Your task to perform on an android device: Show the shopping cart on costco. Image 0: 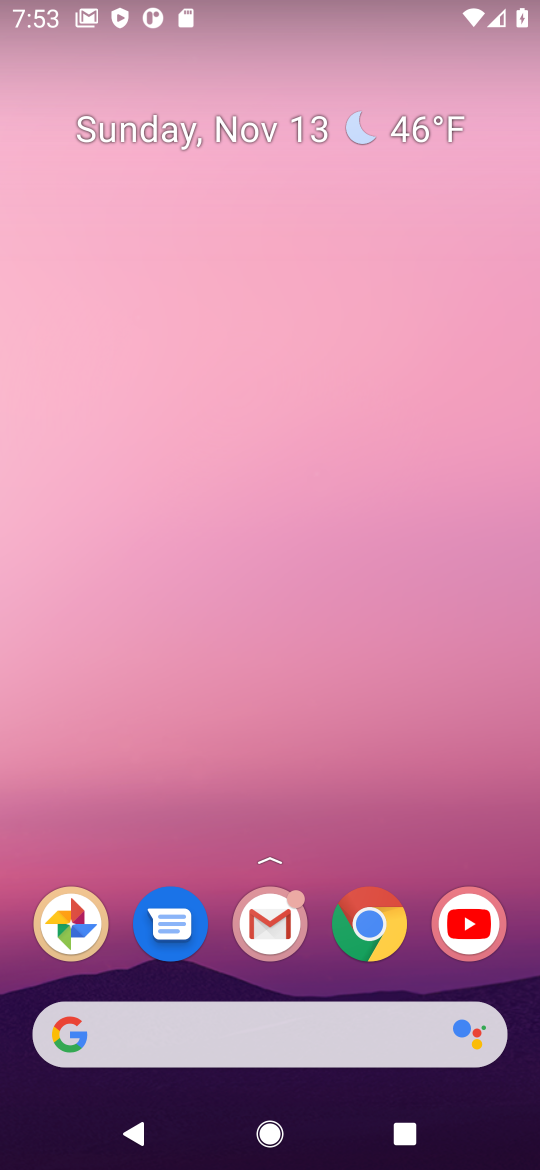
Step 0: click (355, 925)
Your task to perform on an android device: Show the shopping cart on costco. Image 1: 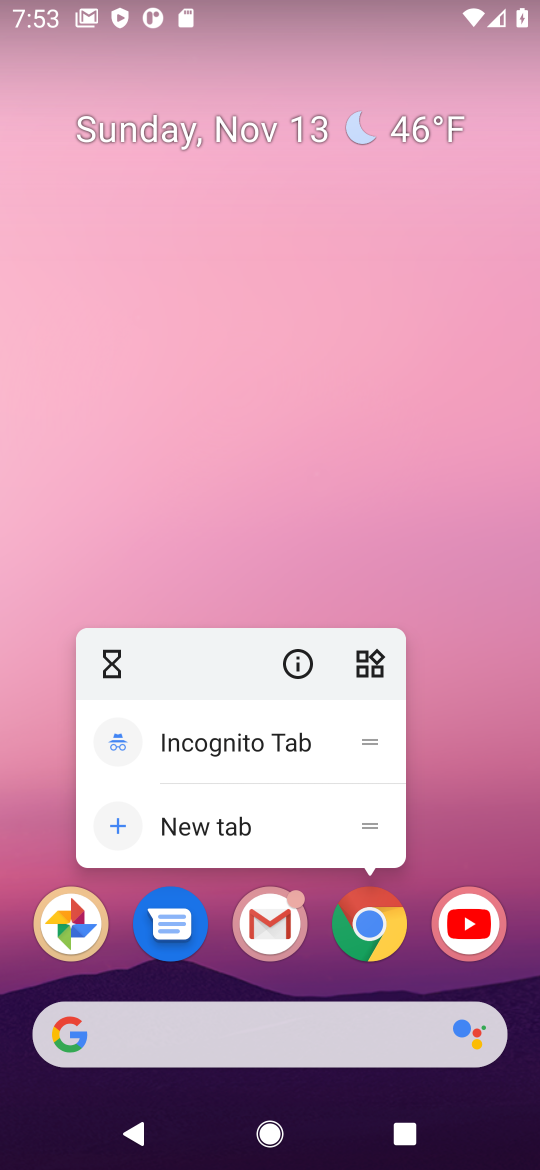
Step 1: click (370, 926)
Your task to perform on an android device: Show the shopping cart on costco. Image 2: 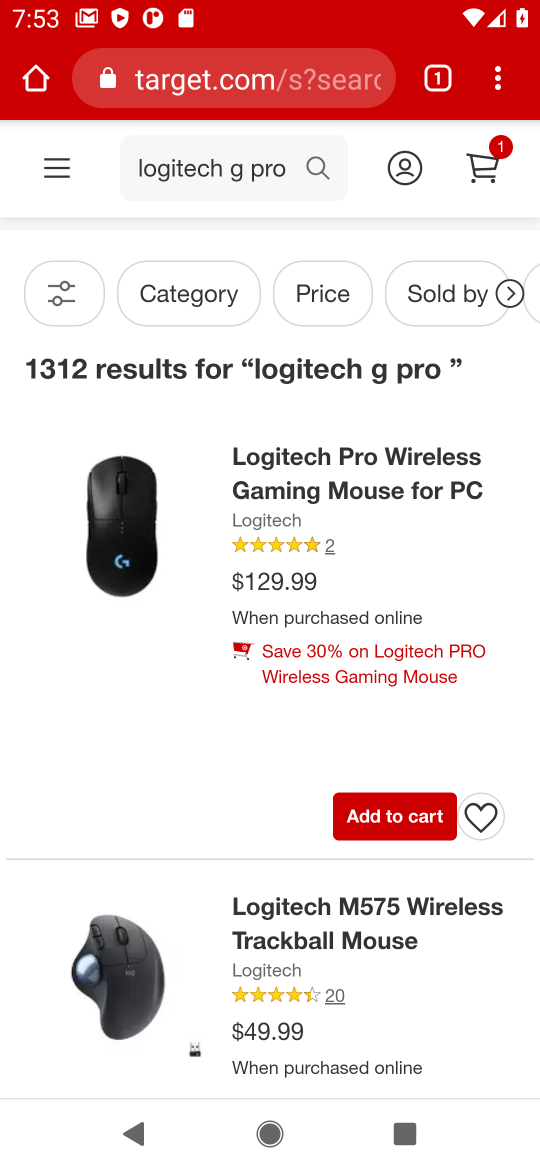
Step 2: click (326, 84)
Your task to perform on an android device: Show the shopping cart on costco. Image 3: 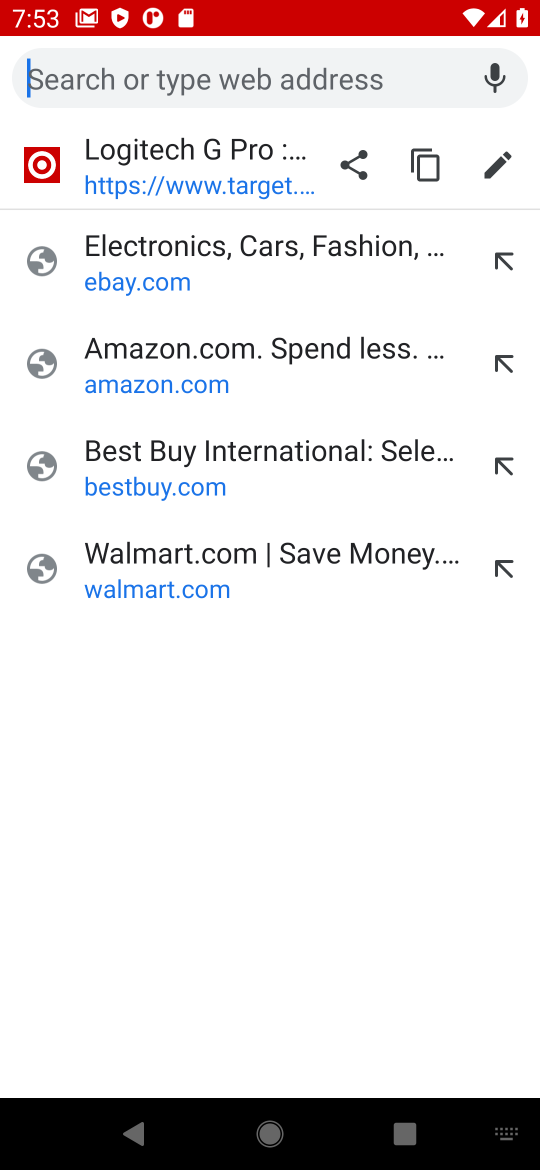
Step 3: type "costco"
Your task to perform on an android device: Show the shopping cart on costco. Image 4: 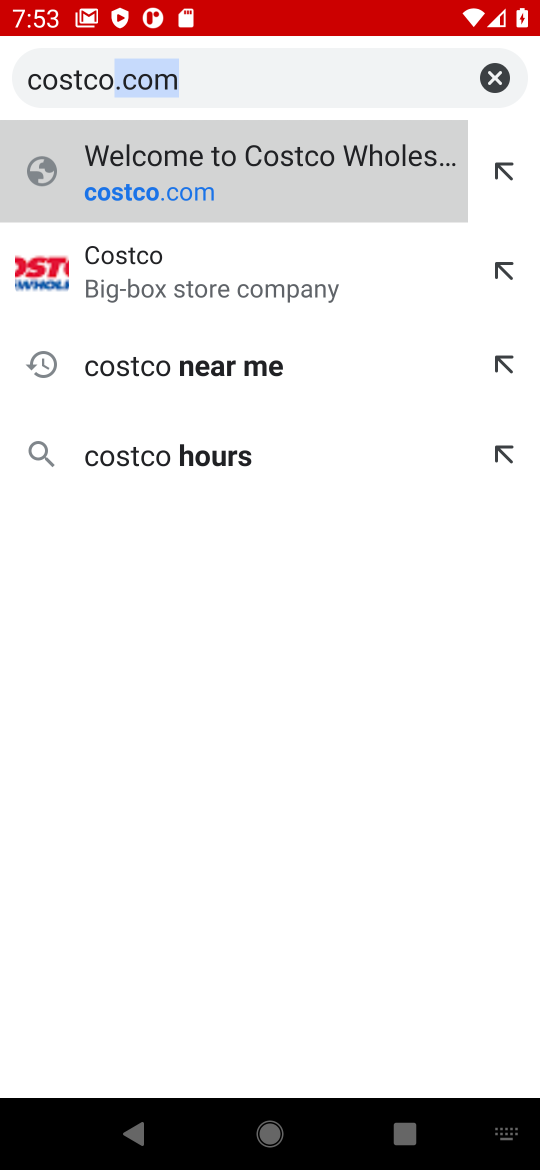
Step 4: press enter
Your task to perform on an android device: Show the shopping cart on costco. Image 5: 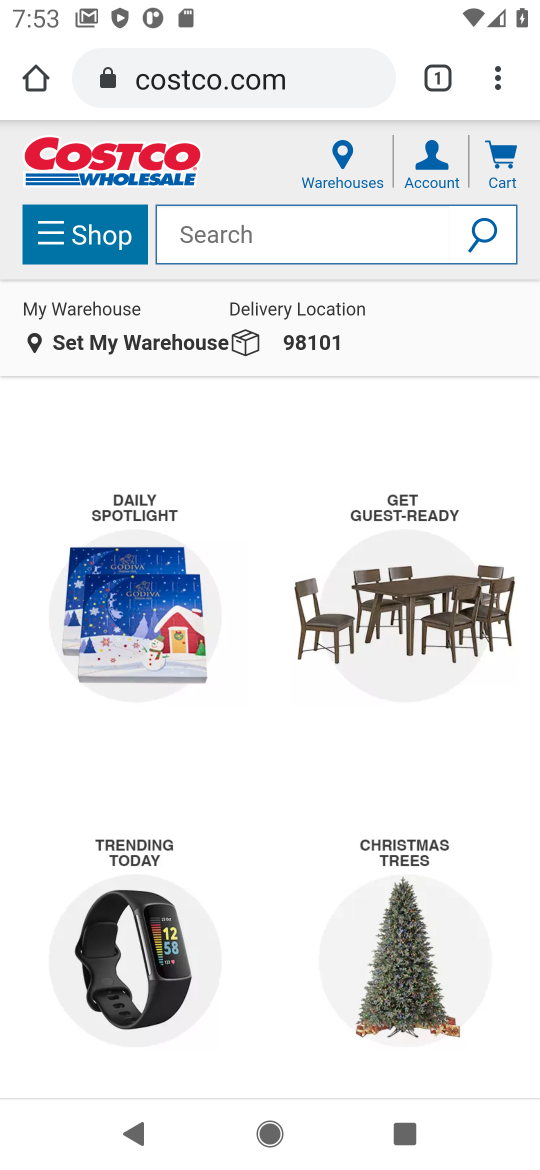
Step 5: click (504, 161)
Your task to perform on an android device: Show the shopping cart on costco. Image 6: 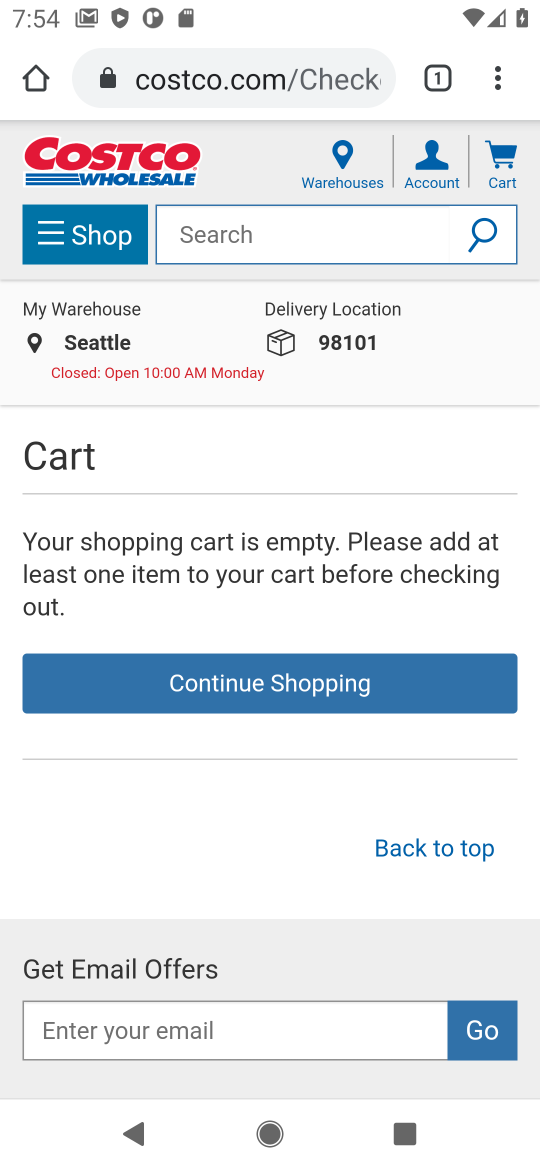
Step 6: task complete